Your task to perform on an android device: Go to eBay Image 0: 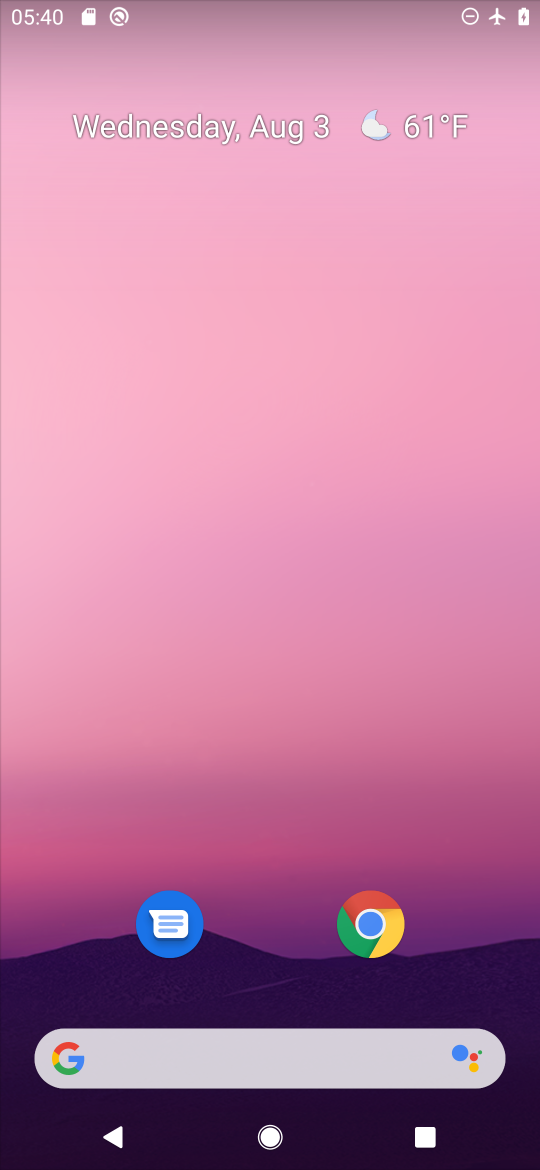
Step 0: click (365, 925)
Your task to perform on an android device: Go to eBay Image 1: 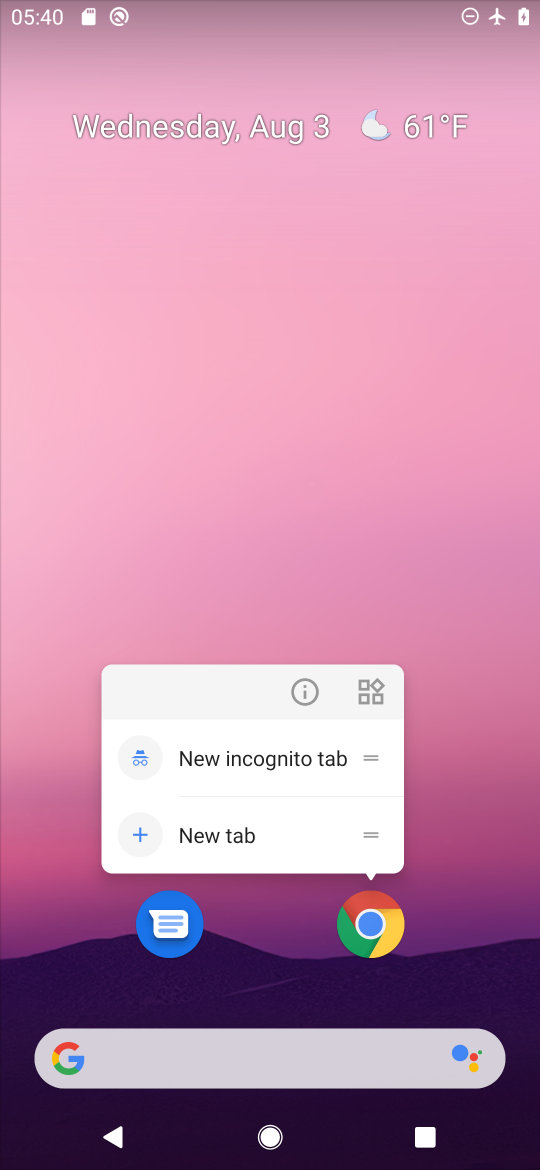
Step 1: click (365, 925)
Your task to perform on an android device: Go to eBay Image 2: 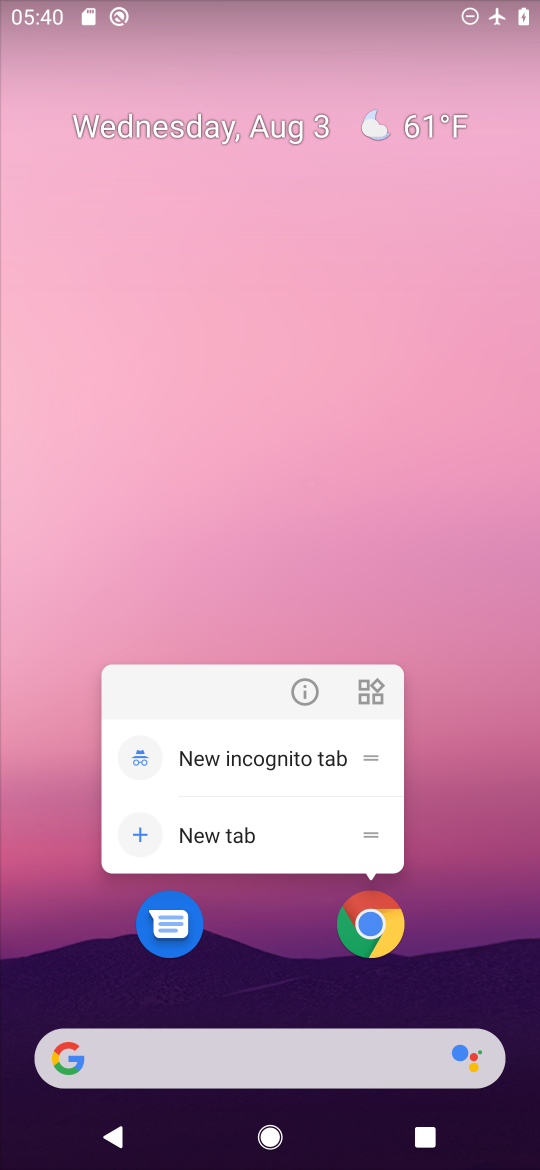
Step 2: click (365, 925)
Your task to perform on an android device: Go to eBay Image 3: 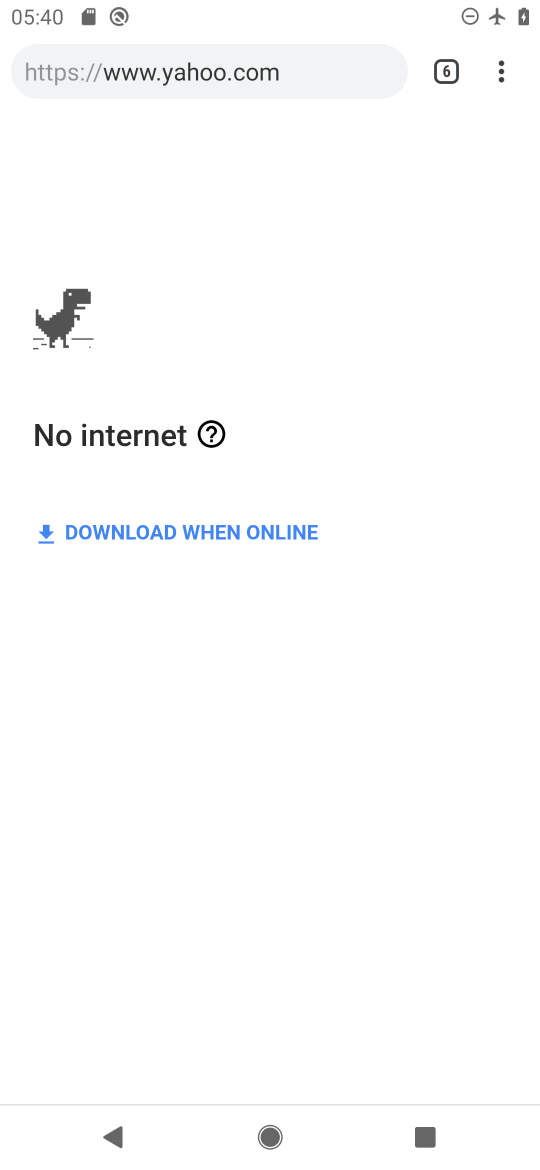
Step 3: click (461, 73)
Your task to perform on an android device: Go to eBay Image 4: 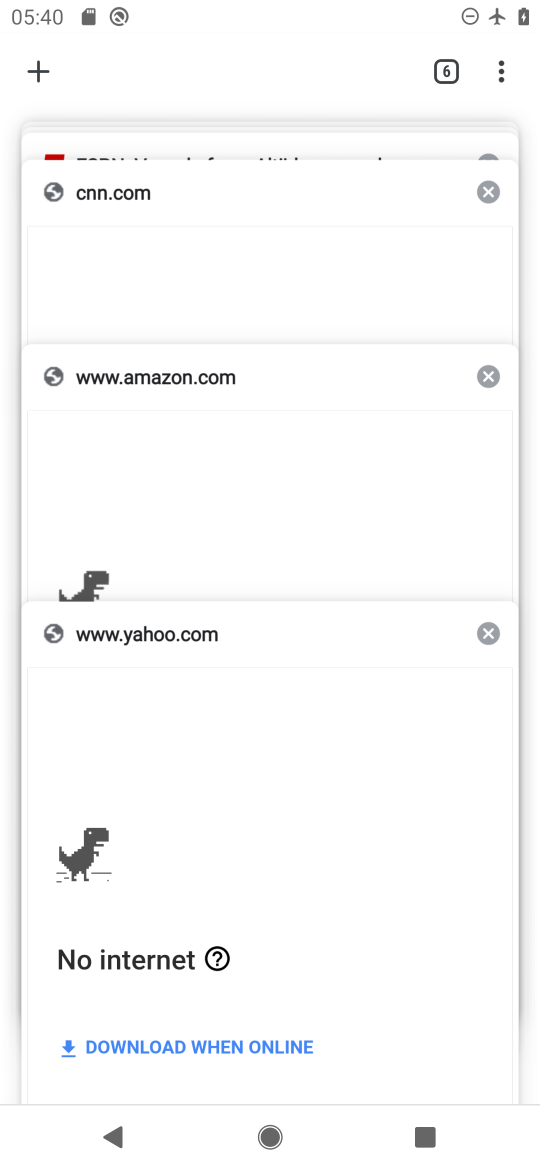
Step 4: click (47, 70)
Your task to perform on an android device: Go to eBay Image 5: 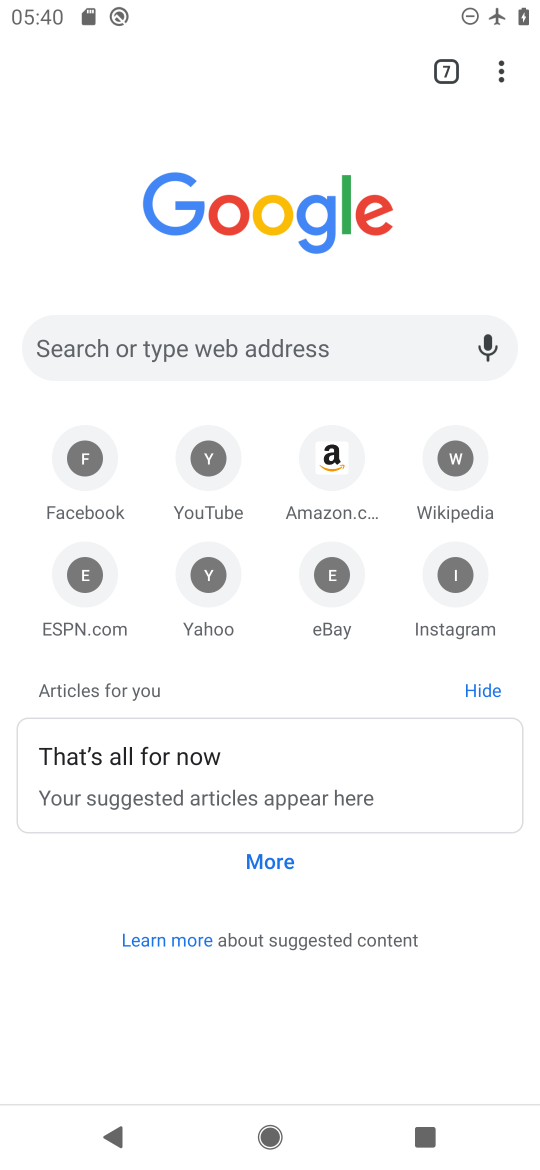
Step 5: click (239, 346)
Your task to perform on an android device: Go to eBay Image 6: 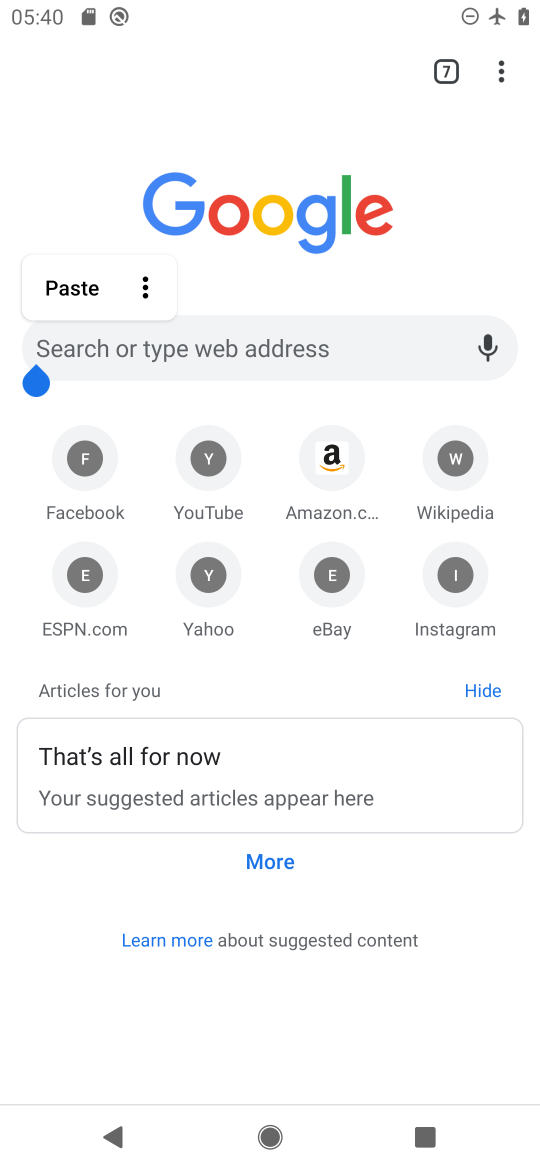
Step 6: type "eBay"
Your task to perform on an android device: Go to eBay Image 7: 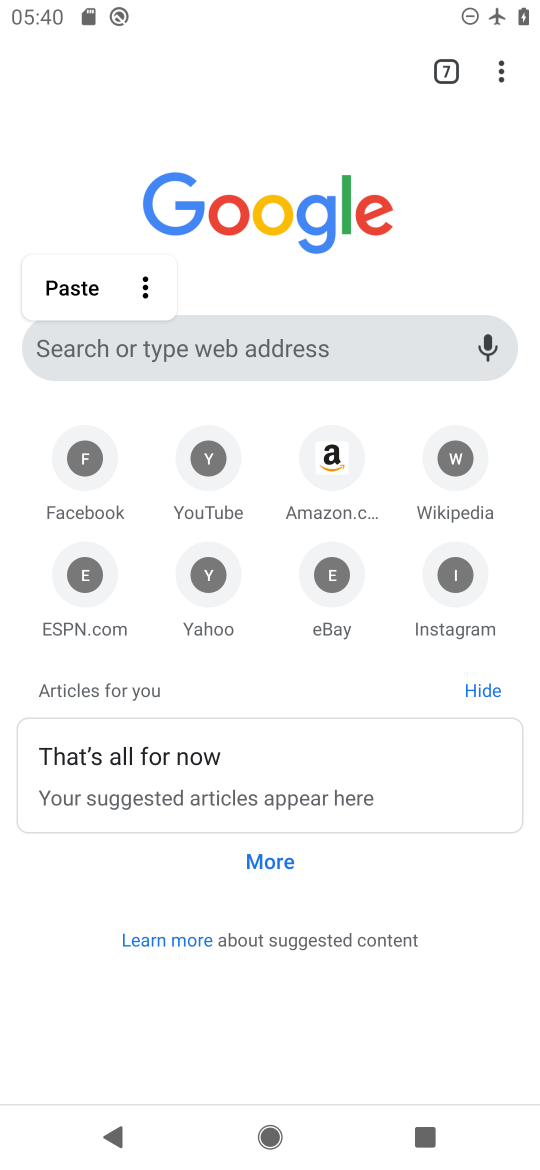
Step 7: type ""
Your task to perform on an android device: Go to eBay Image 8: 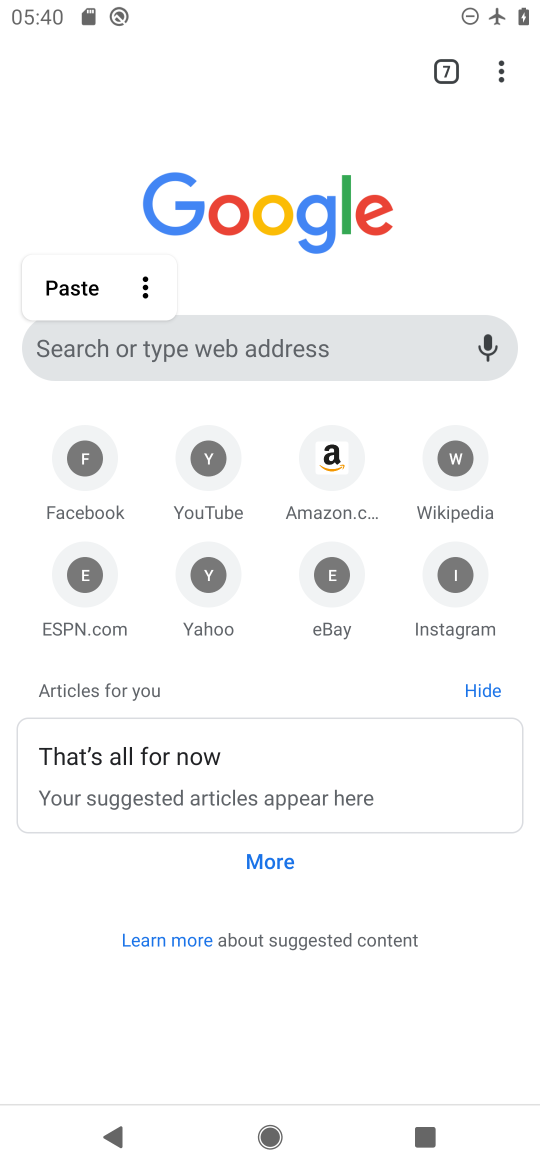
Step 8: click (317, 368)
Your task to perform on an android device: Go to eBay Image 9: 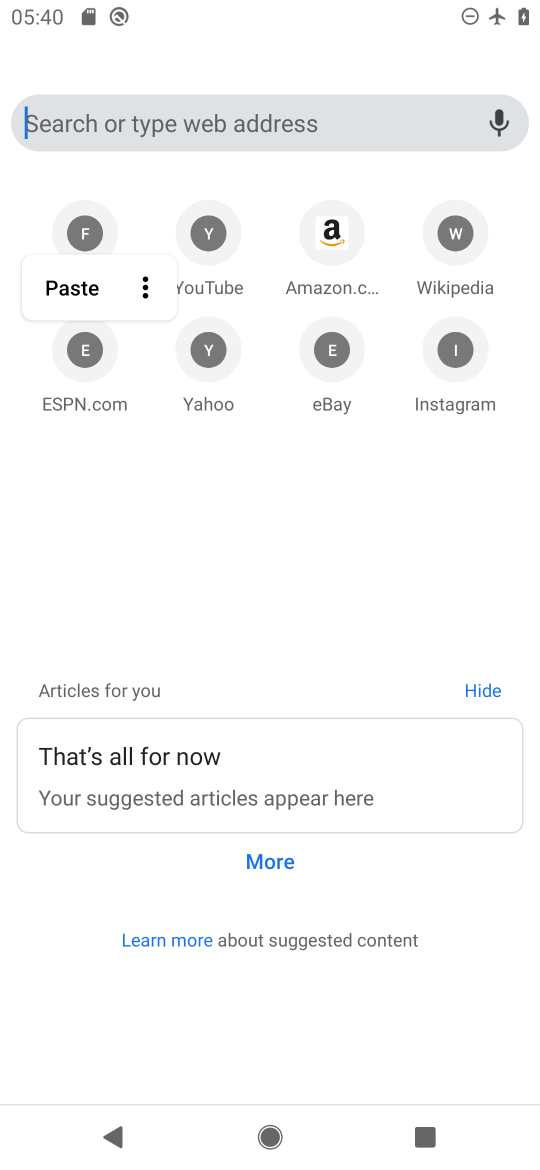
Step 9: task complete